Your task to perform on an android device: Open maps Image 0: 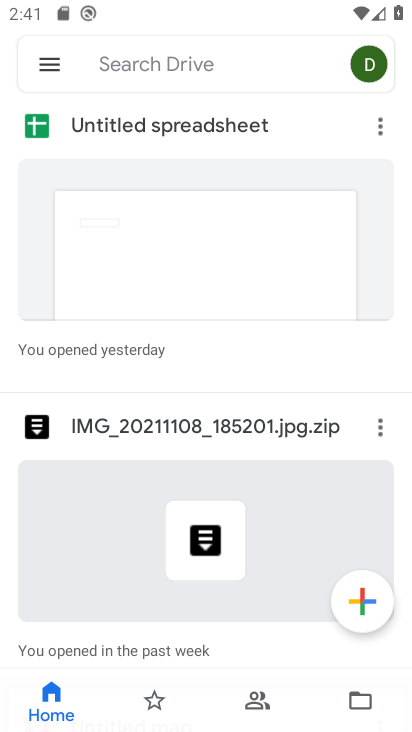
Step 0: press home button
Your task to perform on an android device: Open maps Image 1: 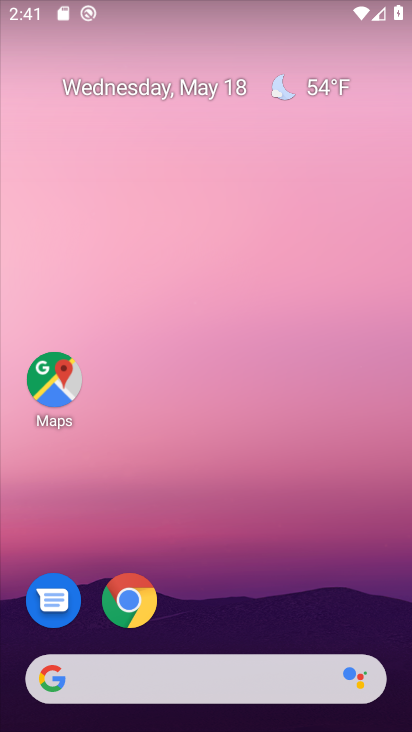
Step 1: click (63, 373)
Your task to perform on an android device: Open maps Image 2: 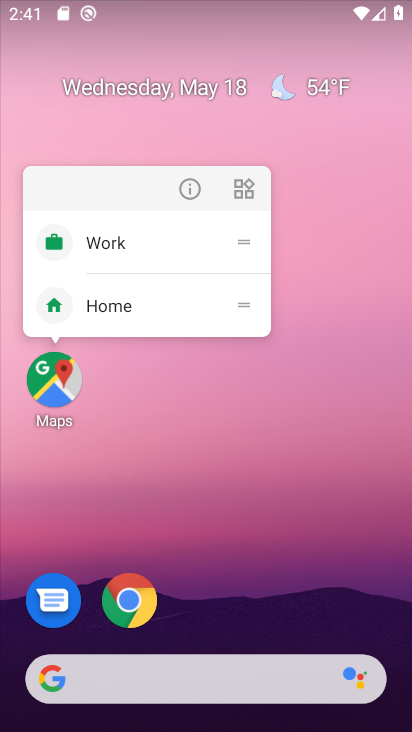
Step 2: click (58, 376)
Your task to perform on an android device: Open maps Image 3: 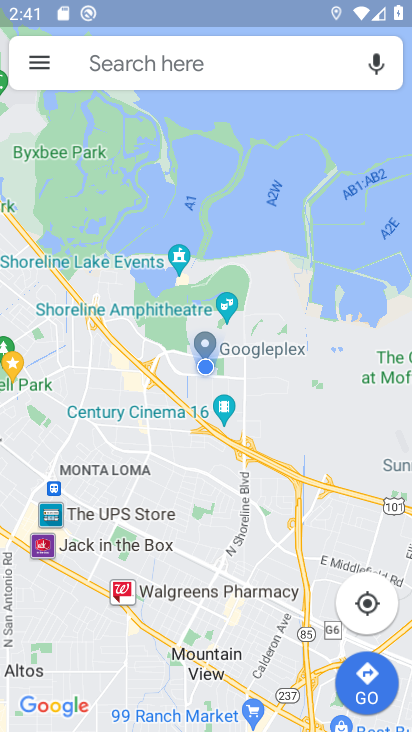
Step 3: task complete